Your task to perform on an android device: Open settings on Google Maps Image 0: 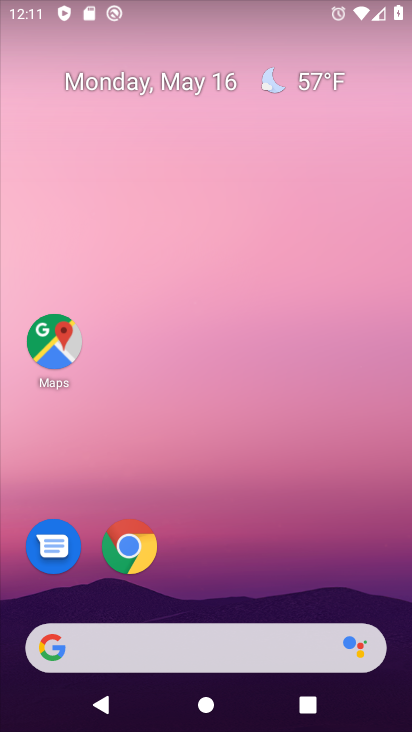
Step 0: drag from (215, 545) to (272, 663)
Your task to perform on an android device: Open settings on Google Maps Image 1: 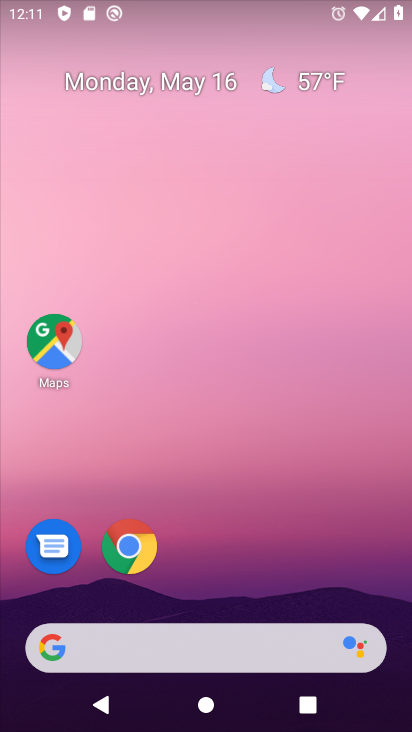
Step 1: click (52, 342)
Your task to perform on an android device: Open settings on Google Maps Image 2: 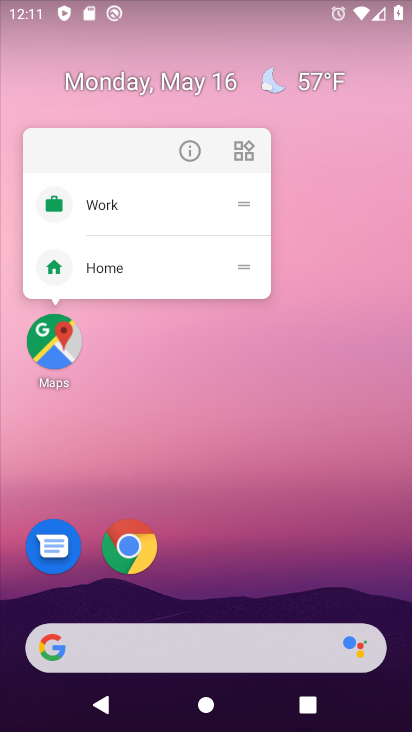
Step 2: click (66, 342)
Your task to perform on an android device: Open settings on Google Maps Image 3: 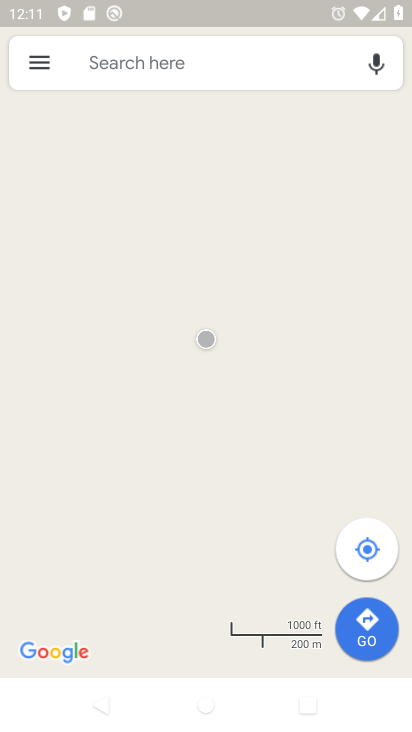
Step 3: click (43, 64)
Your task to perform on an android device: Open settings on Google Maps Image 4: 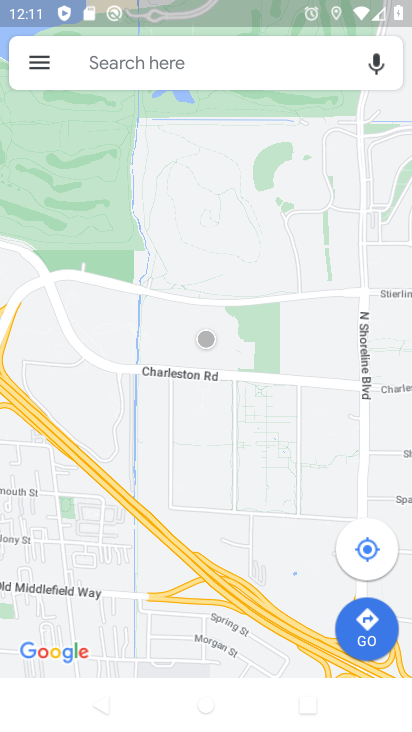
Step 4: click (33, 70)
Your task to perform on an android device: Open settings on Google Maps Image 5: 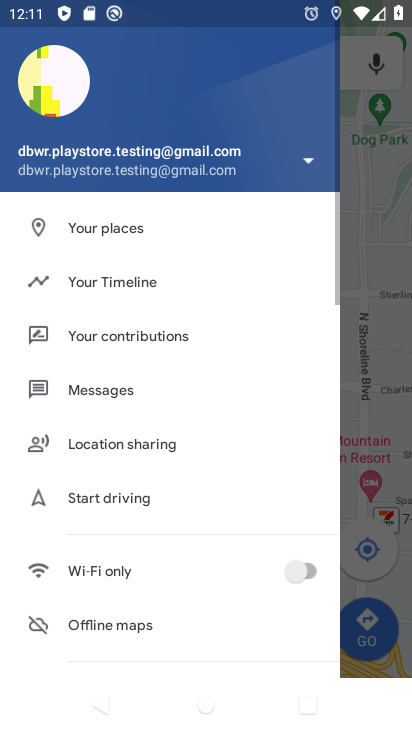
Step 5: drag from (137, 583) to (144, 308)
Your task to perform on an android device: Open settings on Google Maps Image 6: 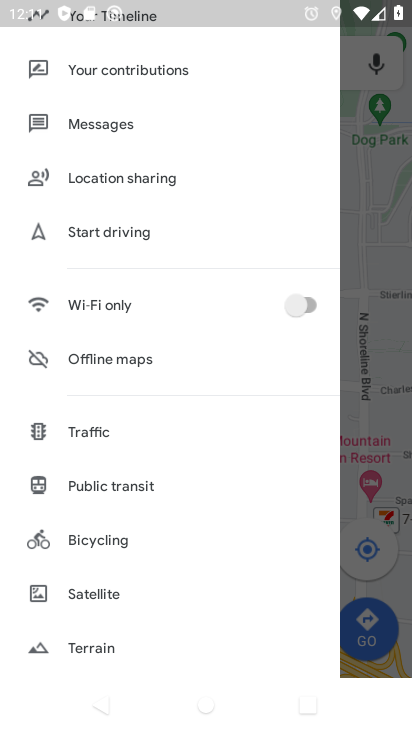
Step 6: drag from (159, 594) to (155, 243)
Your task to perform on an android device: Open settings on Google Maps Image 7: 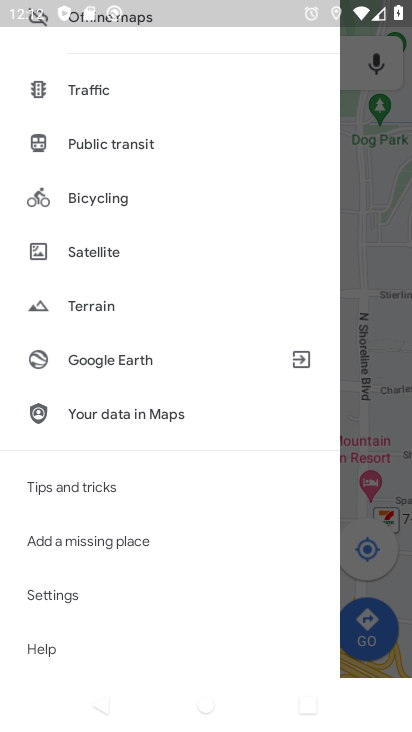
Step 7: click (74, 597)
Your task to perform on an android device: Open settings on Google Maps Image 8: 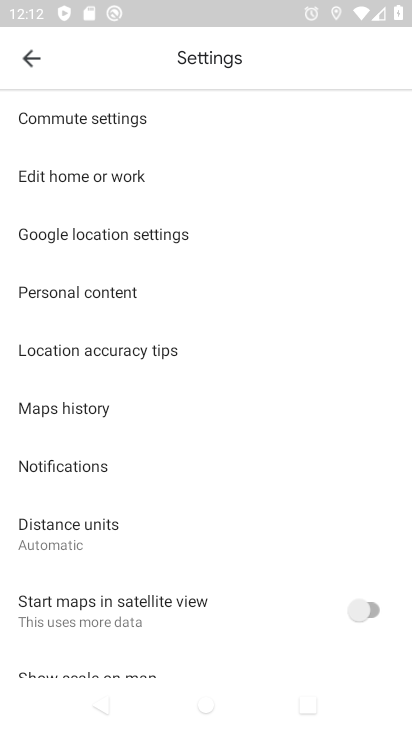
Step 8: task complete